Your task to perform on an android device: Open Chrome and go to settings Image 0: 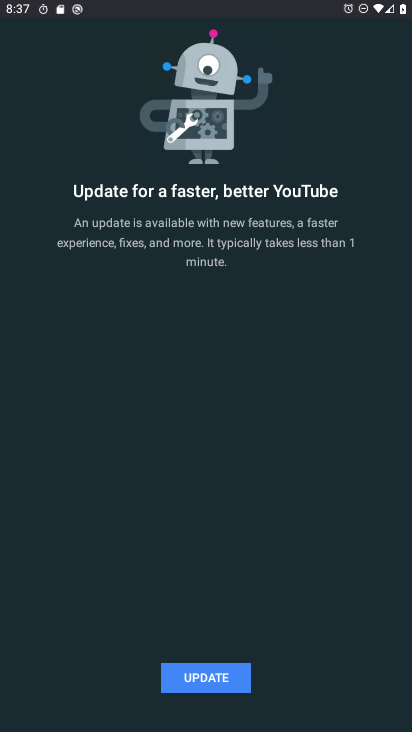
Step 0: press home button
Your task to perform on an android device: Open Chrome and go to settings Image 1: 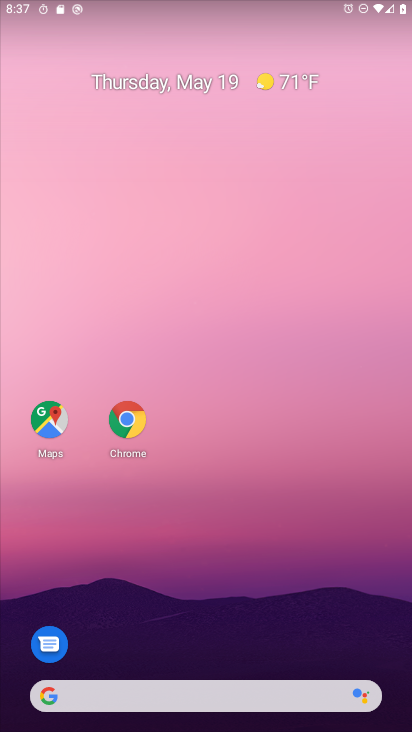
Step 1: click (134, 431)
Your task to perform on an android device: Open Chrome and go to settings Image 2: 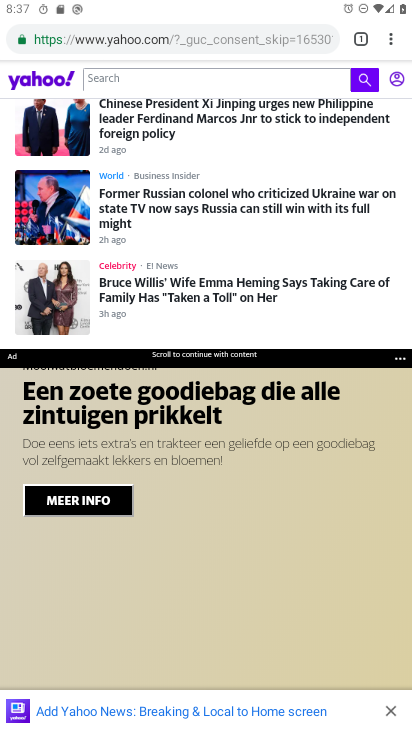
Step 2: click (388, 40)
Your task to perform on an android device: Open Chrome and go to settings Image 3: 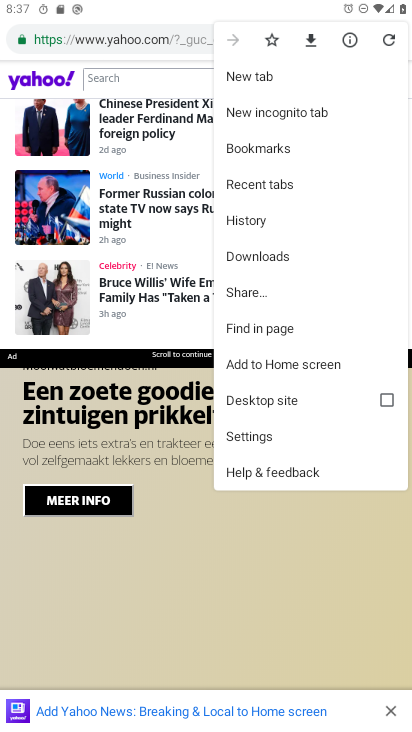
Step 3: click (265, 432)
Your task to perform on an android device: Open Chrome and go to settings Image 4: 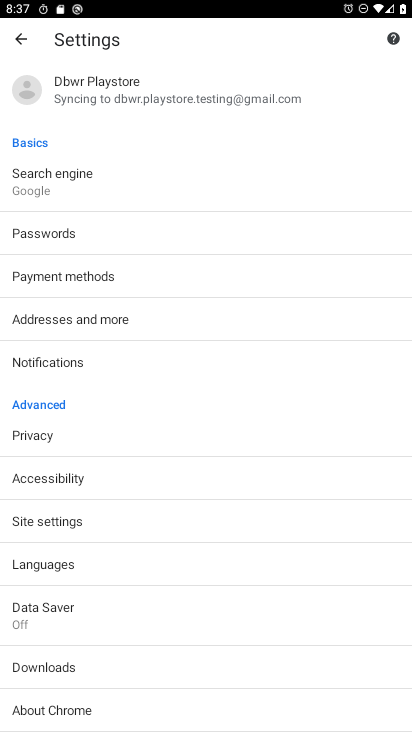
Step 4: drag from (166, 659) to (180, 228)
Your task to perform on an android device: Open Chrome and go to settings Image 5: 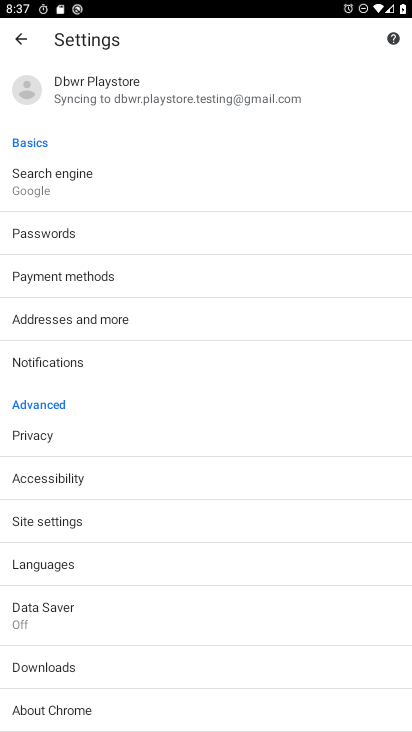
Step 5: drag from (213, 667) to (241, 337)
Your task to perform on an android device: Open Chrome and go to settings Image 6: 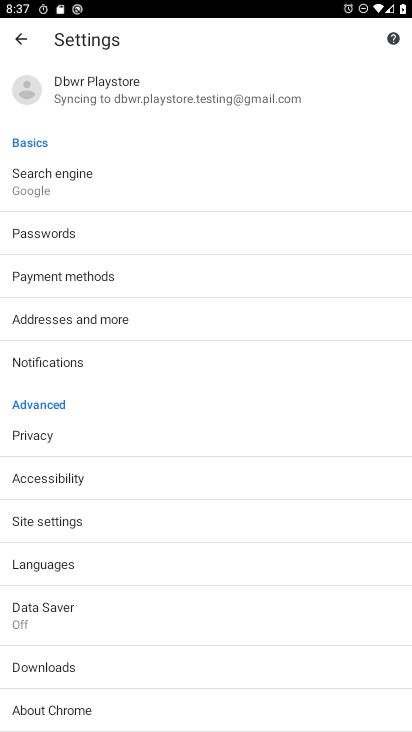
Step 6: click (97, 518)
Your task to perform on an android device: Open Chrome and go to settings Image 7: 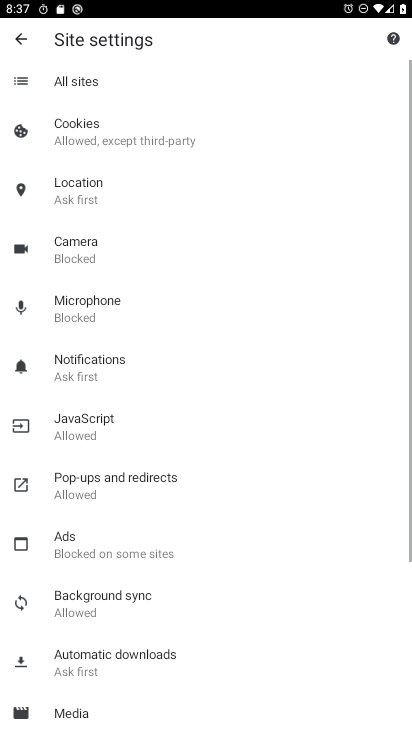
Step 7: task complete